Your task to perform on an android device: Open Reddit.com Image 0: 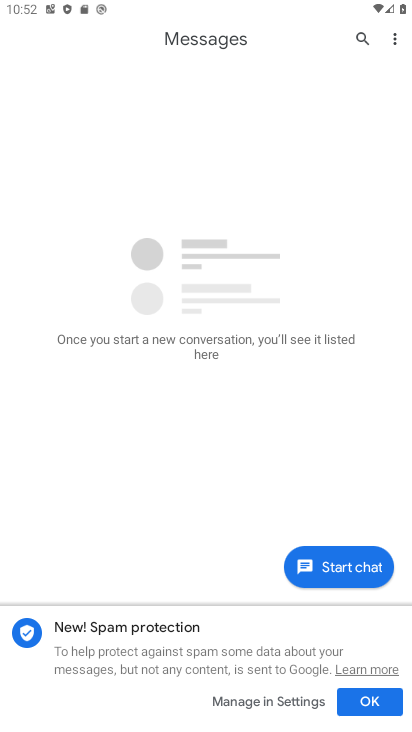
Step 0: press home button
Your task to perform on an android device: Open Reddit.com Image 1: 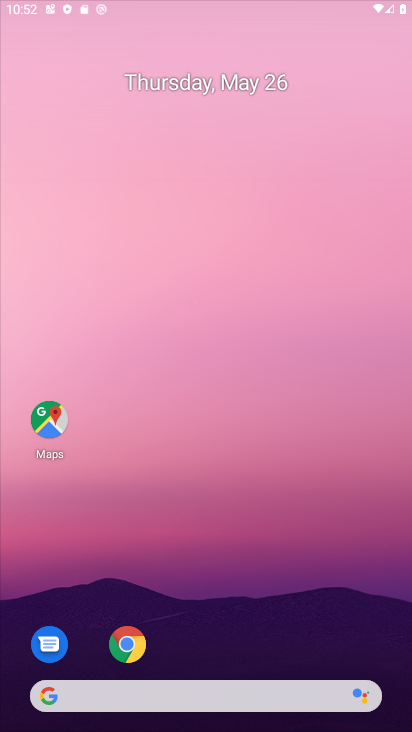
Step 1: drag from (384, 651) to (225, 109)
Your task to perform on an android device: Open Reddit.com Image 2: 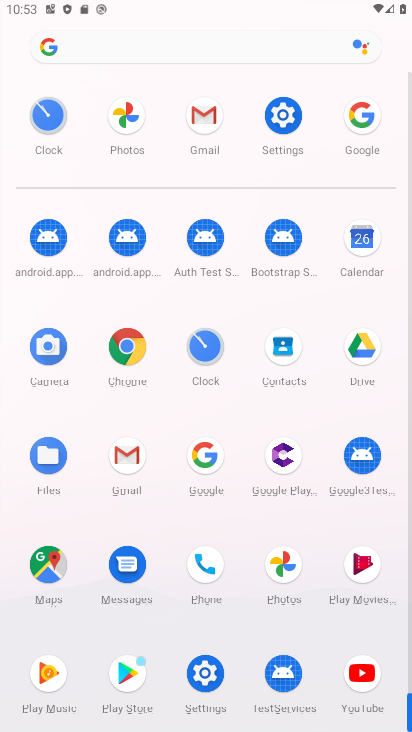
Step 2: click (203, 462)
Your task to perform on an android device: Open Reddit.com Image 3: 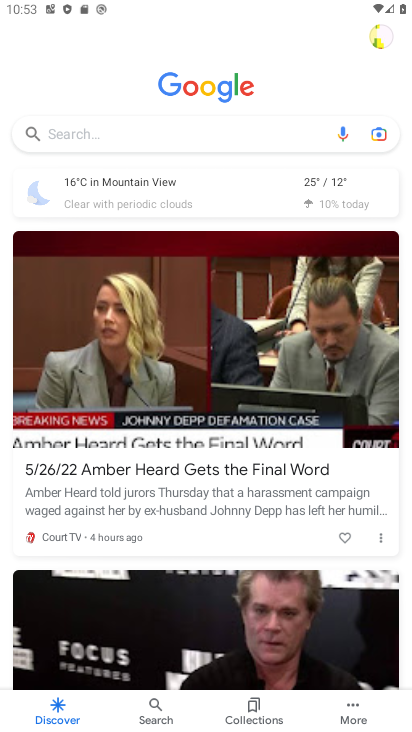
Step 3: click (108, 125)
Your task to perform on an android device: Open Reddit.com Image 4: 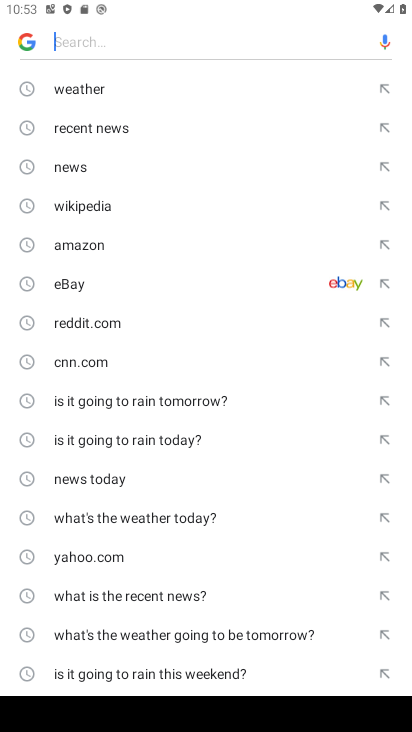
Step 4: click (120, 316)
Your task to perform on an android device: Open Reddit.com Image 5: 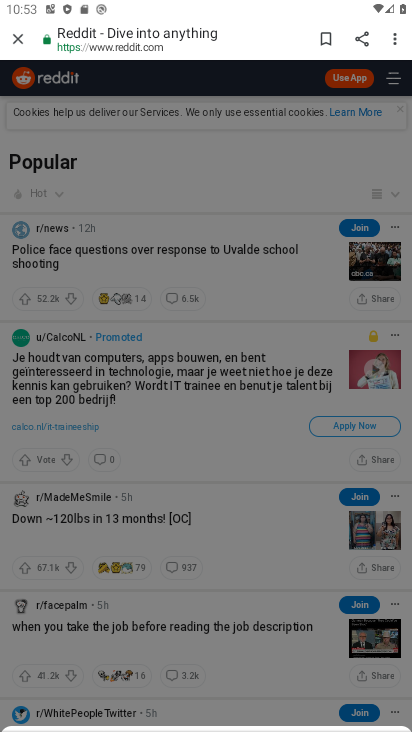
Step 5: task complete